Your task to perform on an android device: toggle notification dots Image 0: 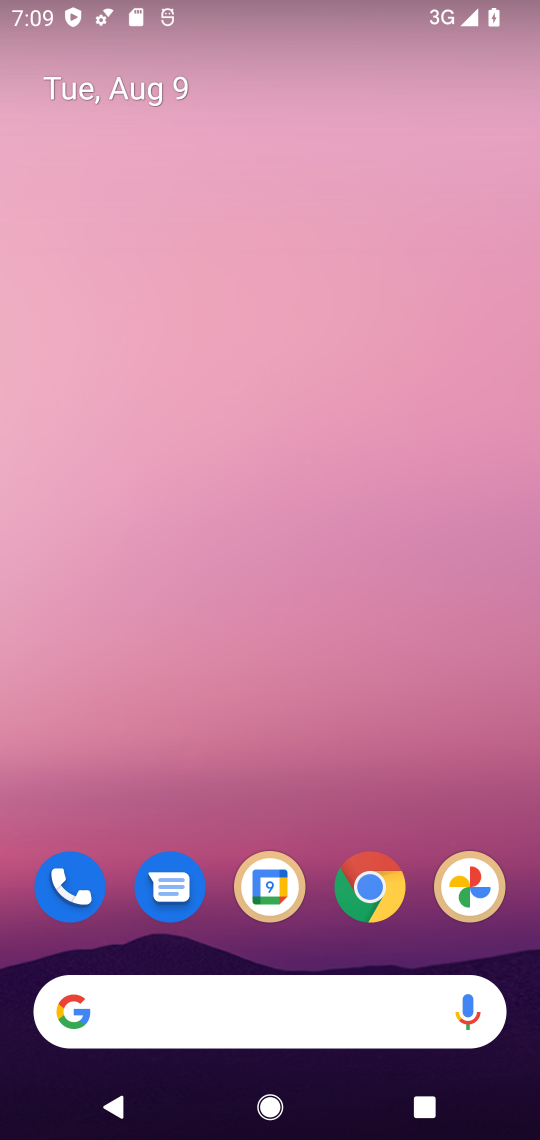
Step 0: drag from (278, 796) to (319, 0)
Your task to perform on an android device: toggle notification dots Image 1: 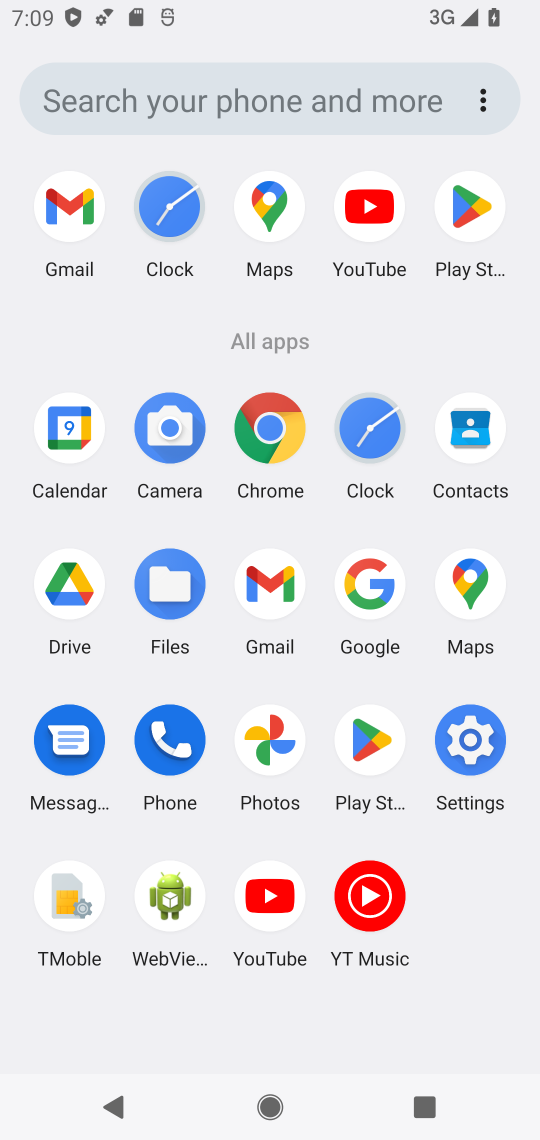
Step 1: click (467, 739)
Your task to perform on an android device: toggle notification dots Image 2: 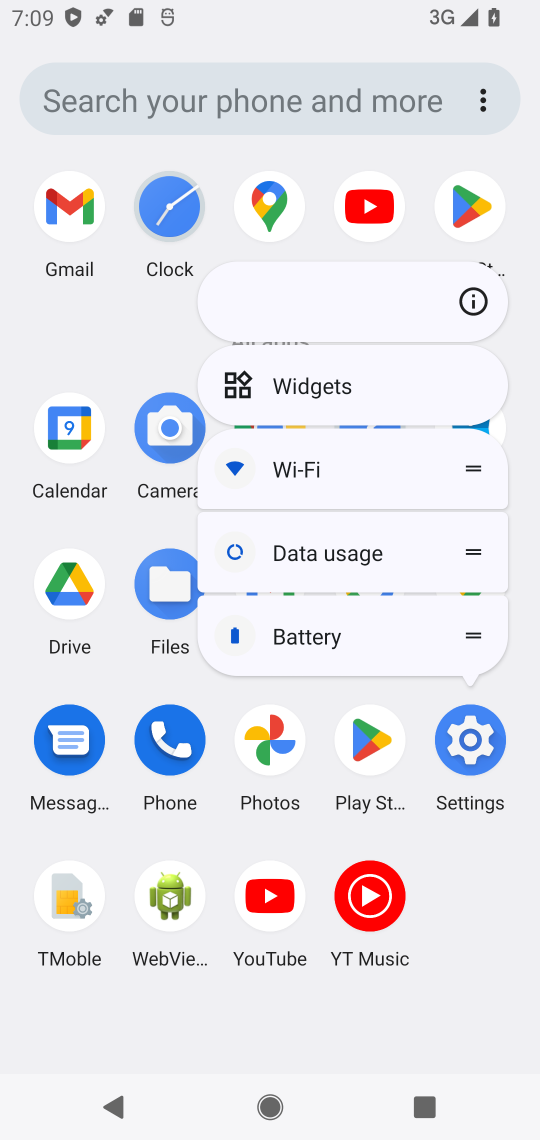
Step 2: click (467, 739)
Your task to perform on an android device: toggle notification dots Image 3: 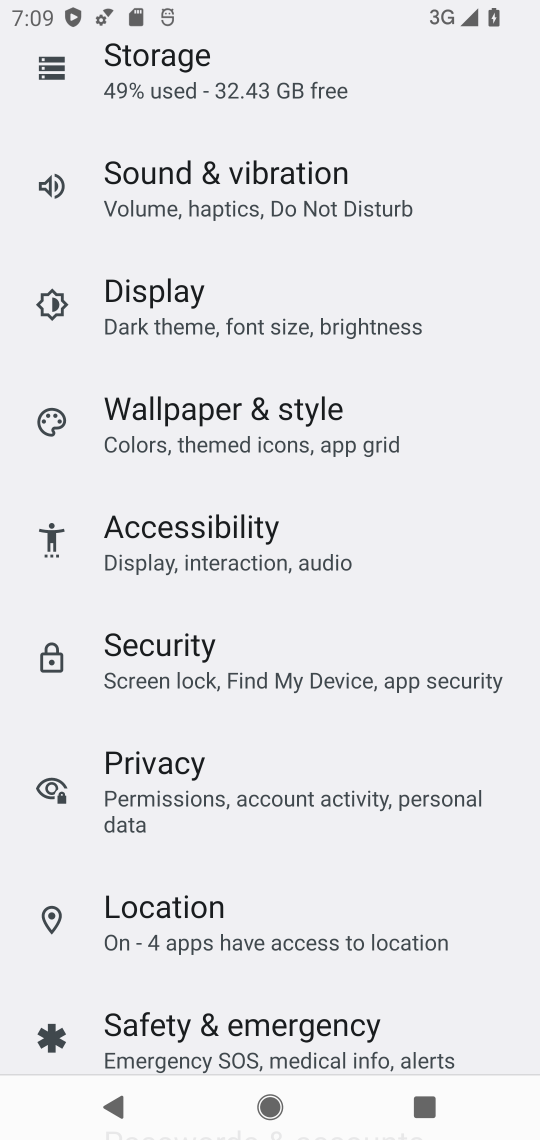
Step 3: drag from (298, 277) to (290, 779)
Your task to perform on an android device: toggle notification dots Image 4: 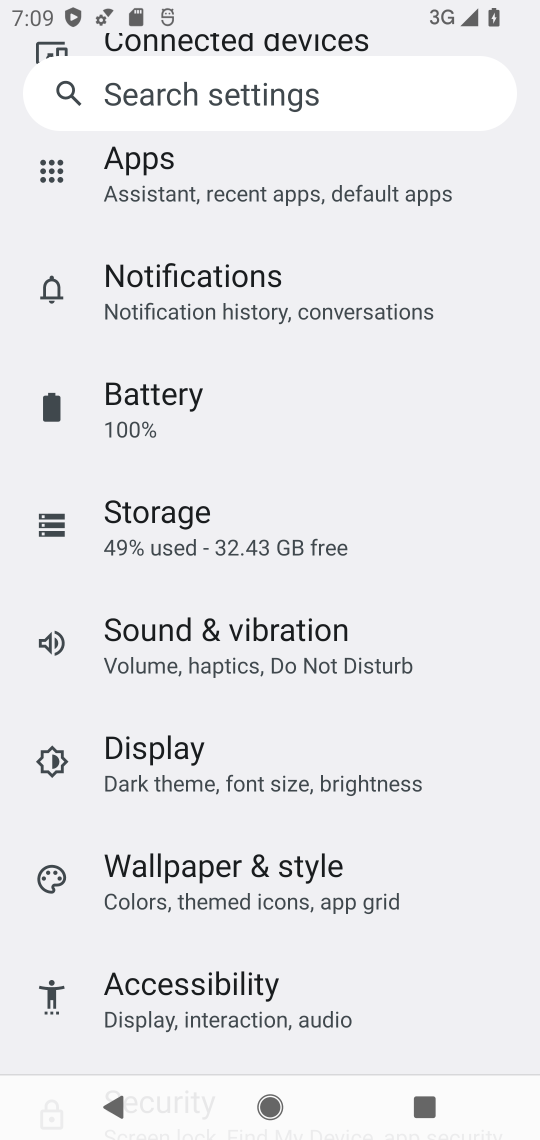
Step 4: click (307, 290)
Your task to perform on an android device: toggle notification dots Image 5: 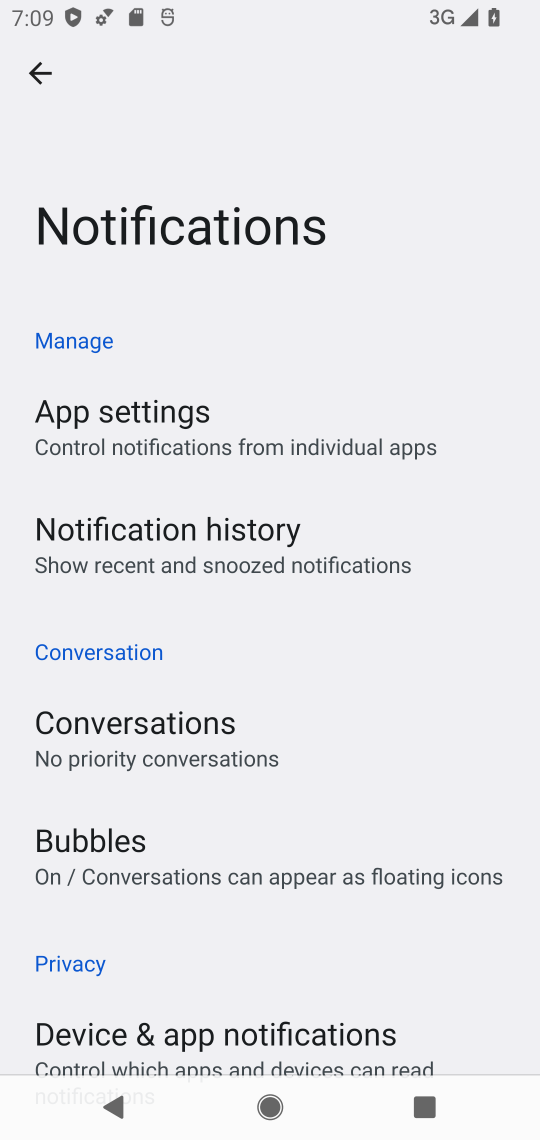
Step 5: drag from (330, 845) to (358, 153)
Your task to perform on an android device: toggle notification dots Image 6: 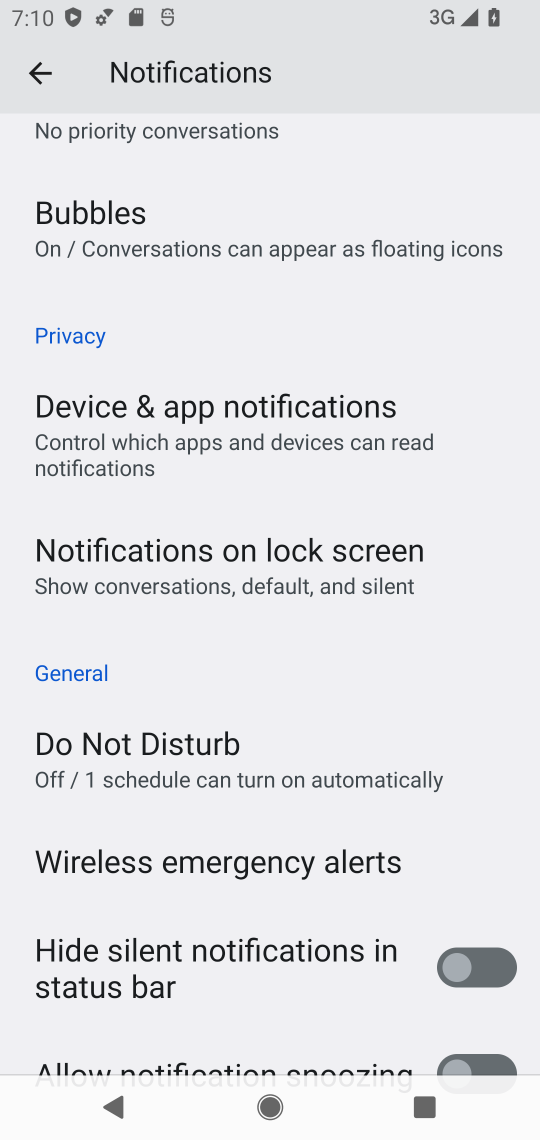
Step 6: drag from (328, 668) to (343, 192)
Your task to perform on an android device: toggle notification dots Image 7: 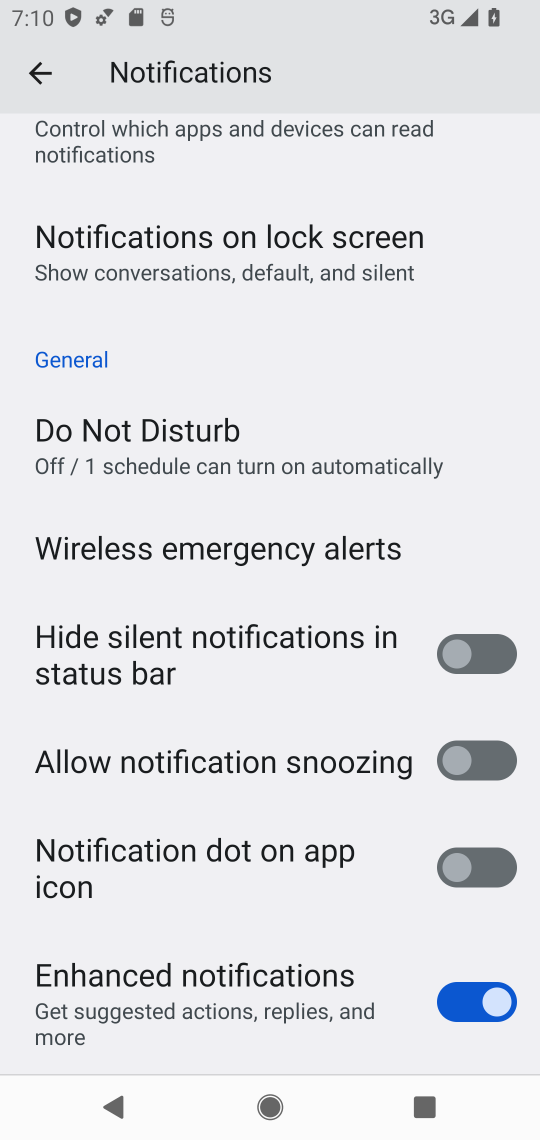
Step 7: drag from (312, 344) to (339, 62)
Your task to perform on an android device: toggle notification dots Image 8: 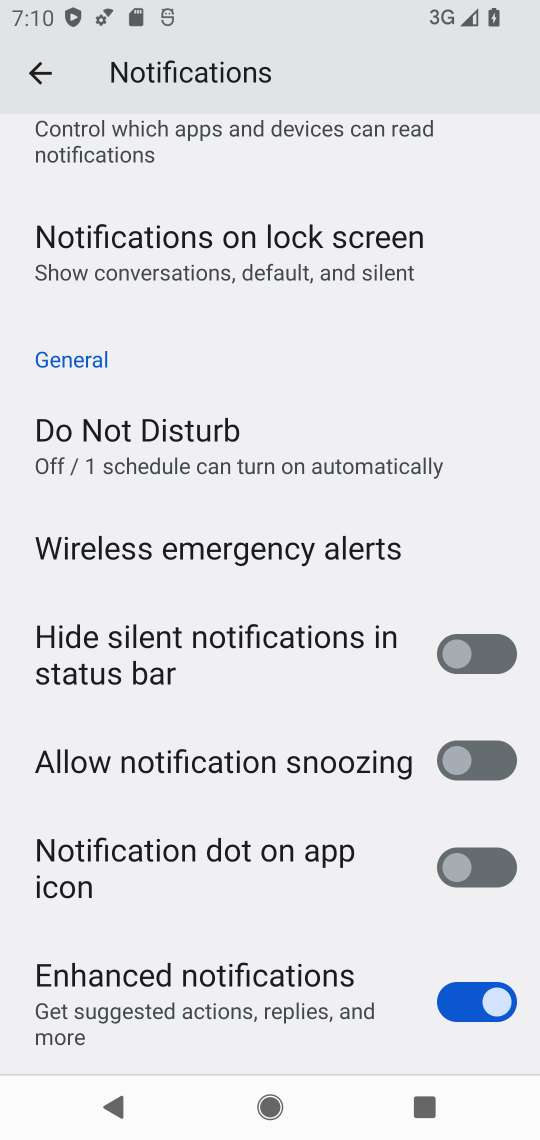
Step 8: click (462, 863)
Your task to perform on an android device: toggle notification dots Image 9: 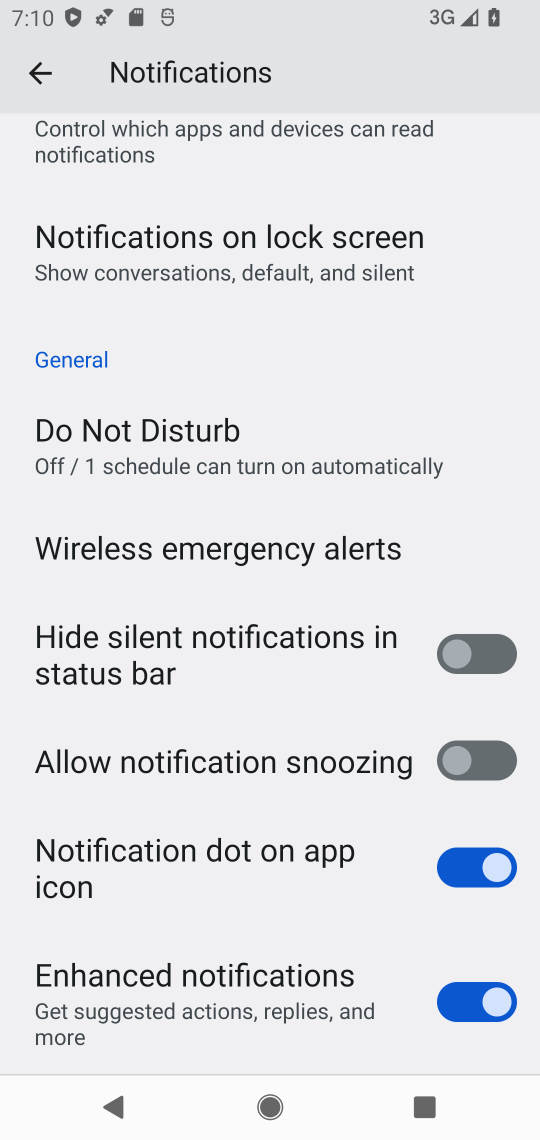
Step 9: task complete